Your task to perform on an android device: Open Android settings Image 0: 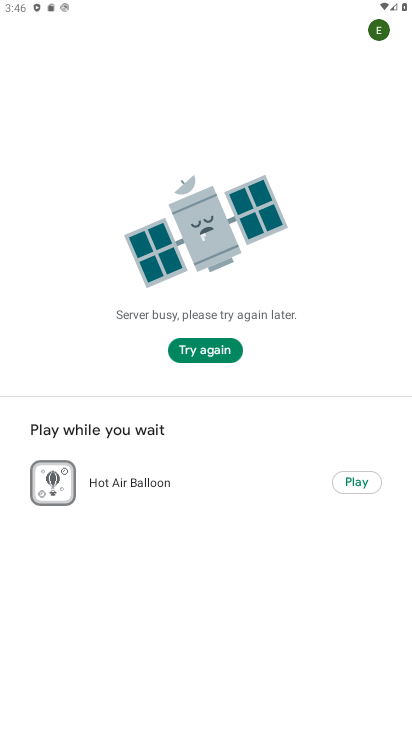
Step 0: press home button
Your task to perform on an android device: Open Android settings Image 1: 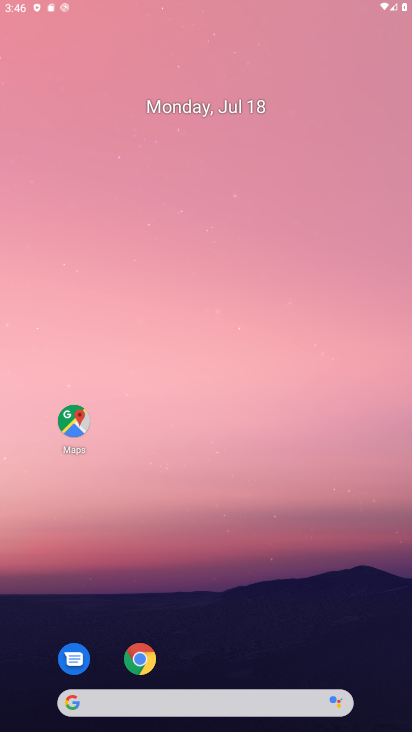
Step 1: drag from (187, 714) to (314, 12)
Your task to perform on an android device: Open Android settings Image 2: 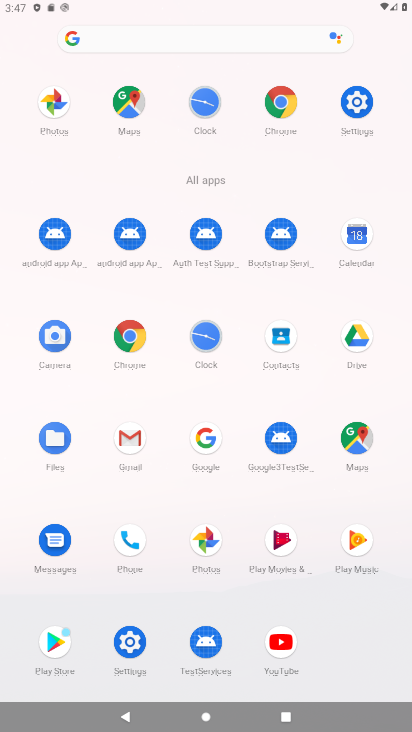
Step 2: click (357, 94)
Your task to perform on an android device: Open Android settings Image 3: 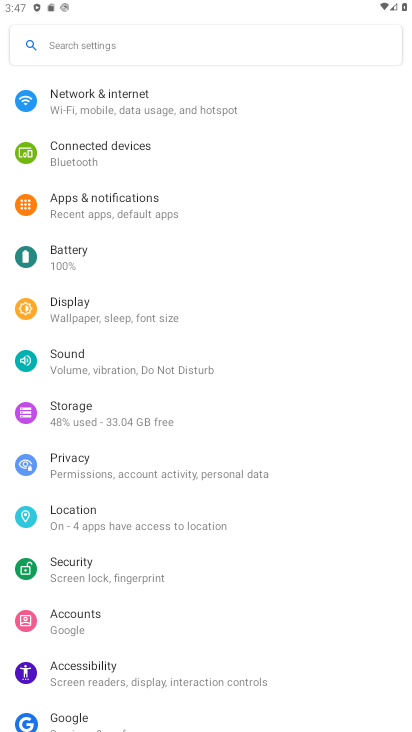
Step 3: drag from (225, 699) to (168, 175)
Your task to perform on an android device: Open Android settings Image 4: 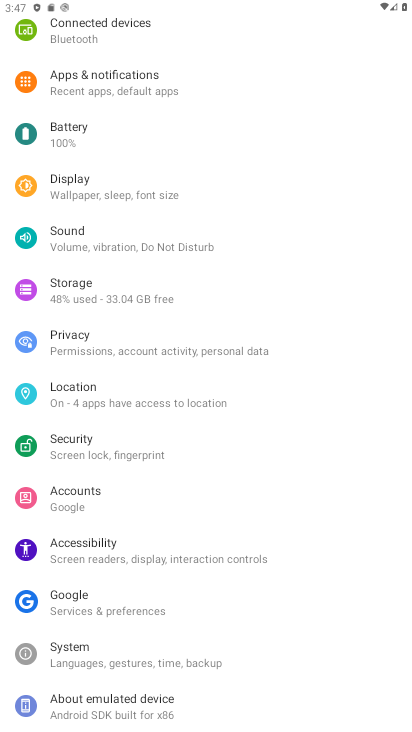
Step 4: click (135, 693)
Your task to perform on an android device: Open Android settings Image 5: 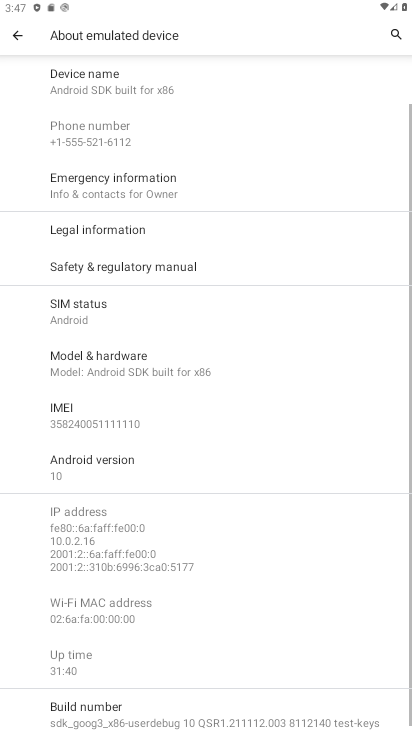
Step 5: click (160, 466)
Your task to perform on an android device: Open Android settings Image 6: 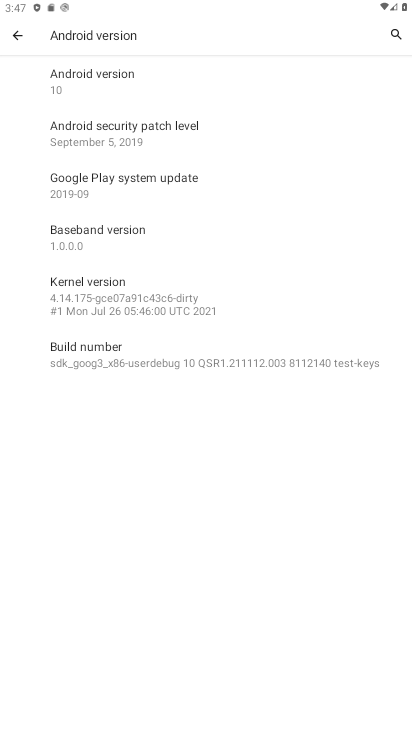
Step 6: task complete